Your task to perform on an android device: Find coffee shops on Maps Image 0: 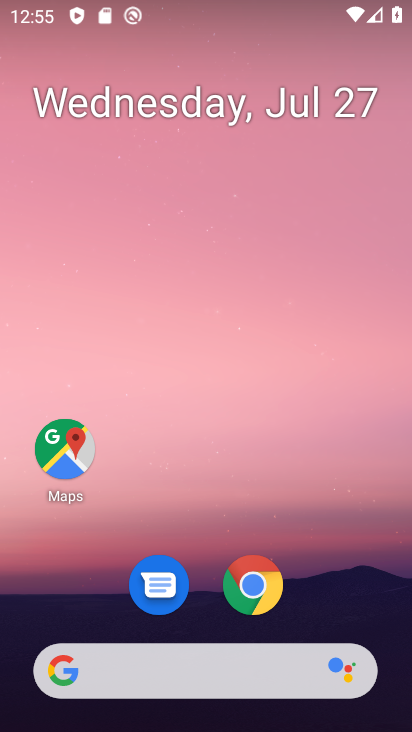
Step 0: press home button
Your task to perform on an android device: Find coffee shops on Maps Image 1: 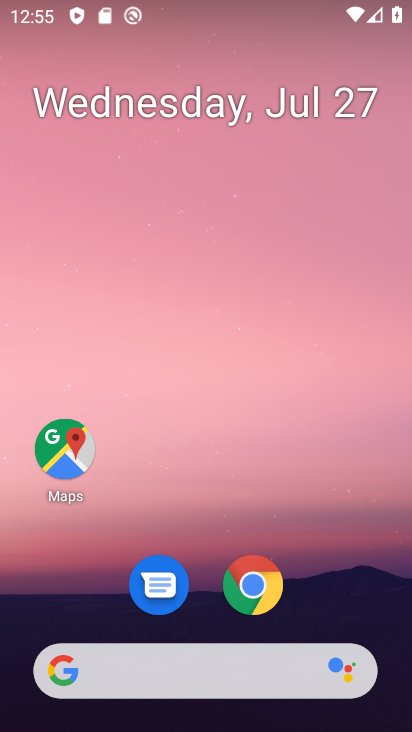
Step 1: click (53, 456)
Your task to perform on an android device: Find coffee shops on Maps Image 2: 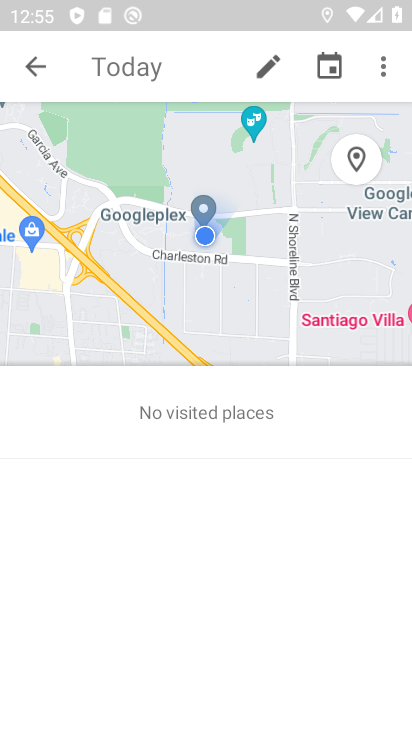
Step 2: click (42, 64)
Your task to perform on an android device: Find coffee shops on Maps Image 3: 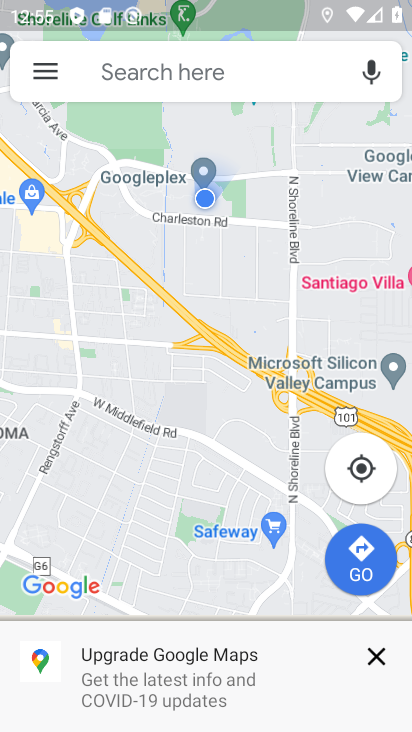
Step 3: click (143, 74)
Your task to perform on an android device: Find coffee shops on Maps Image 4: 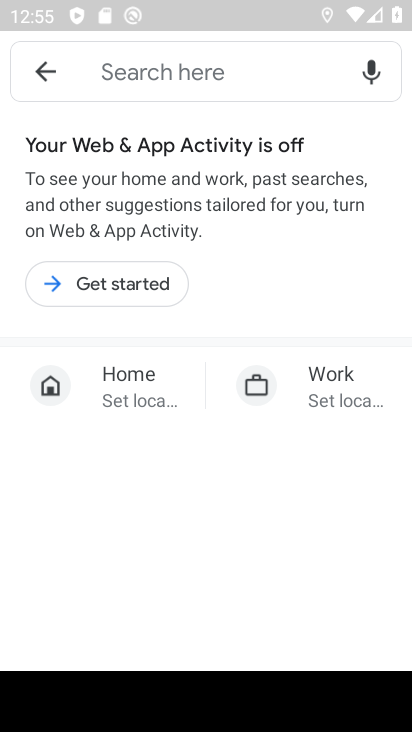
Step 4: type "coffee shops"
Your task to perform on an android device: Find coffee shops on Maps Image 5: 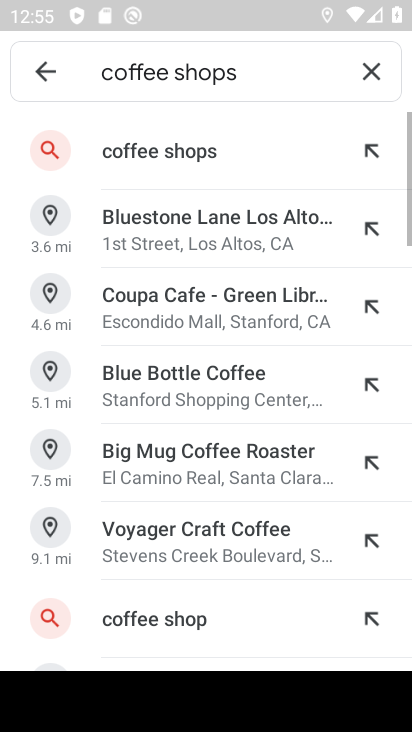
Step 5: click (179, 147)
Your task to perform on an android device: Find coffee shops on Maps Image 6: 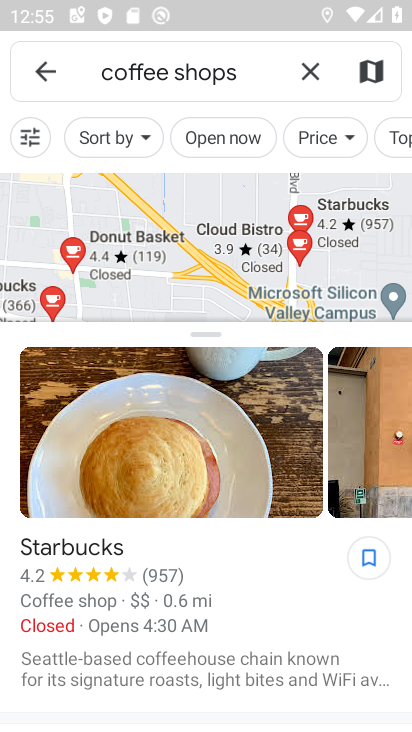
Step 6: task complete